Your task to perform on an android device: toggle airplane mode Image 0: 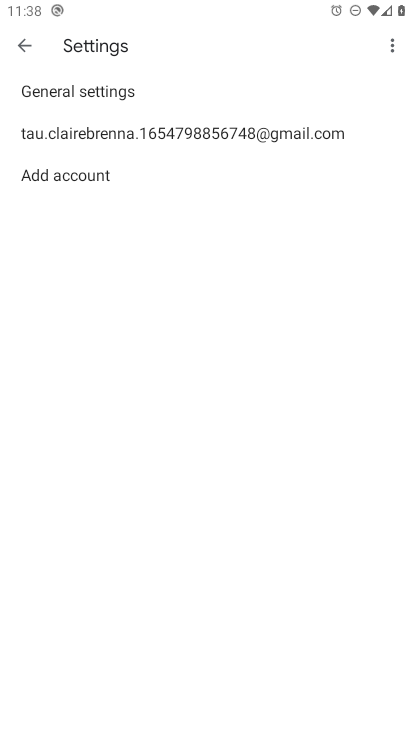
Step 0: press home button
Your task to perform on an android device: toggle airplane mode Image 1: 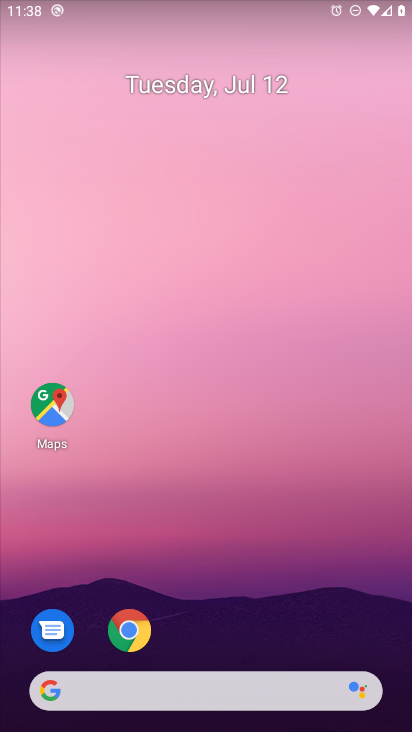
Step 1: drag from (298, 2) to (267, 373)
Your task to perform on an android device: toggle airplane mode Image 2: 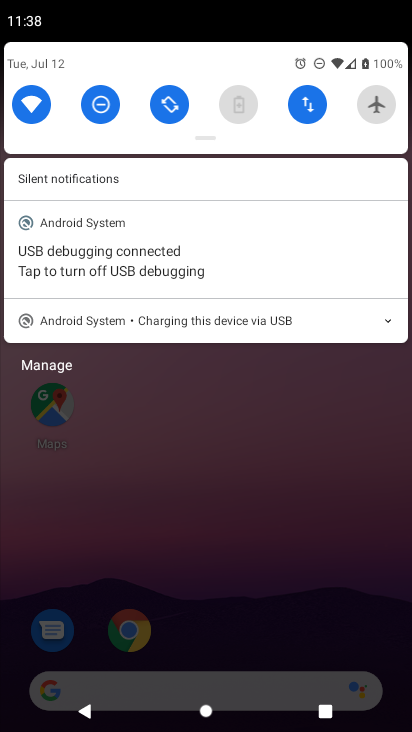
Step 2: click (376, 97)
Your task to perform on an android device: toggle airplane mode Image 3: 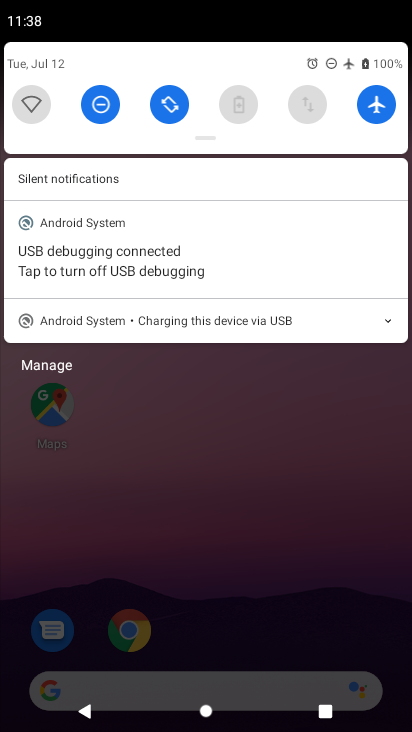
Step 3: task complete